Your task to perform on an android device: toggle wifi Image 0: 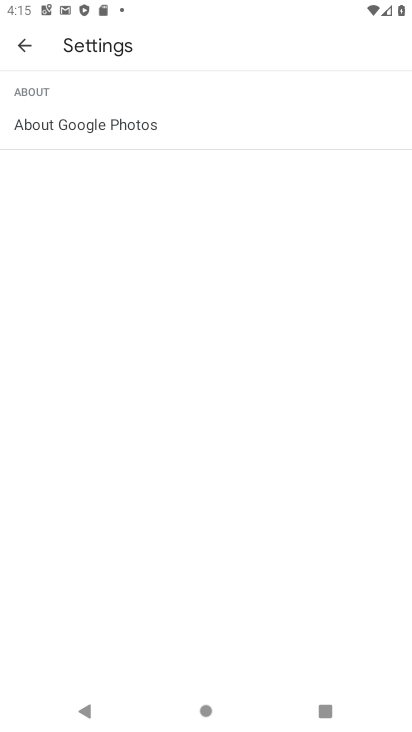
Step 0: drag from (185, 51) to (198, 413)
Your task to perform on an android device: toggle wifi Image 1: 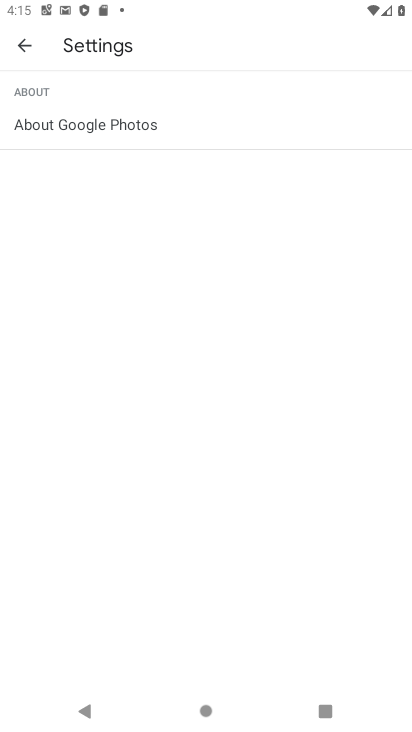
Step 1: drag from (136, 45) to (153, 508)
Your task to perform on an android device: toggle wifi Image 2: 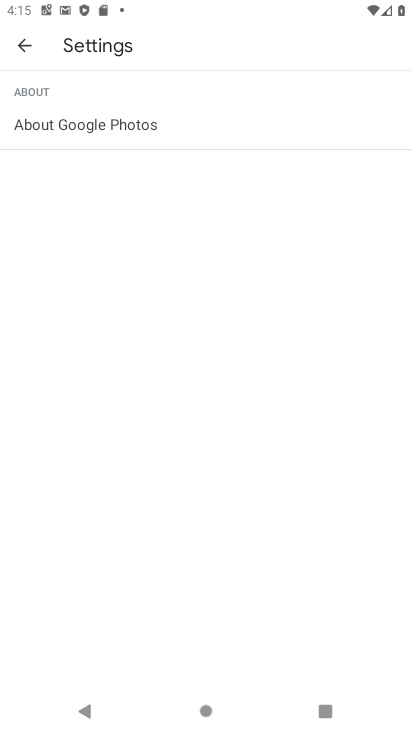
Step 2: press home button
Your task to perform on an android device: toggle wifi Image 3: 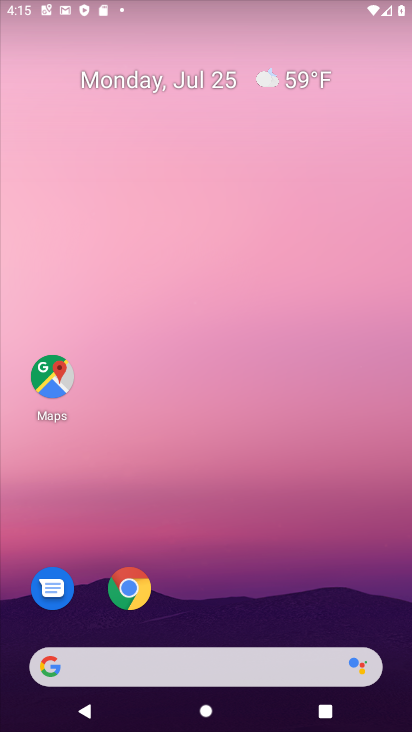
Step 3: drag from (231, 0) to (214, 448)
Your task to perform on an android device: toggle wifi Image 4: 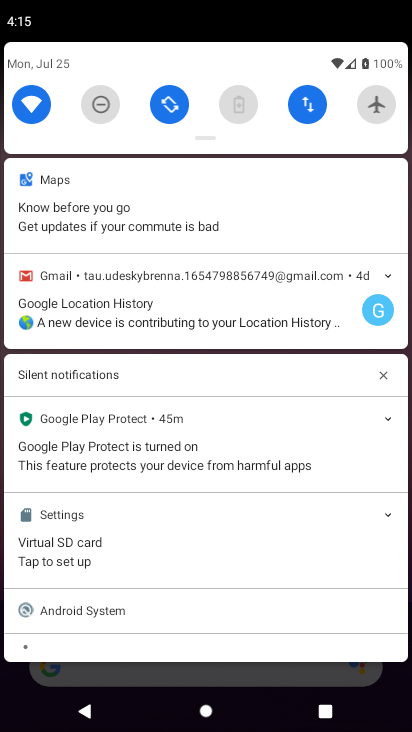
Step 4: click (27, 107)
Your task to perform on an android device: toggle wifi Image 5: 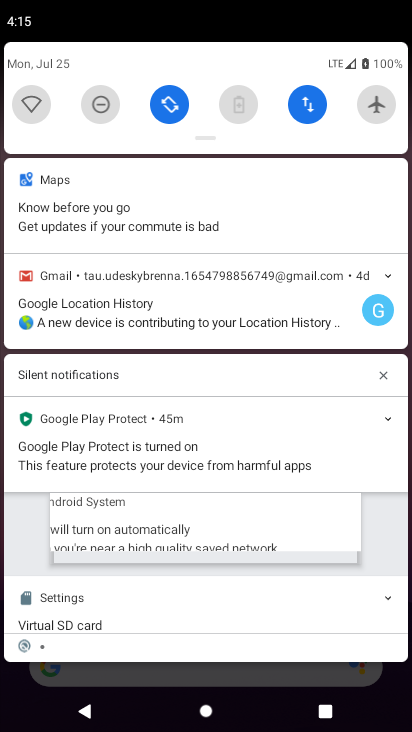
Step 5: task complete